Your task to perform on an android device: see tabs open on other devices in the chrome app Image 0: 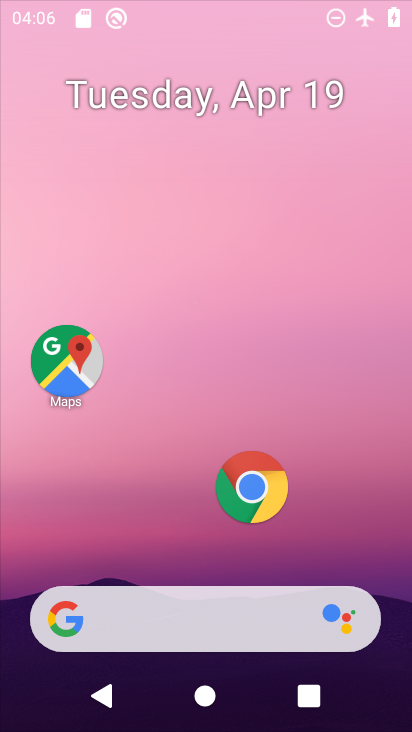
Step 0: drag from (181, 465) to (267, 71)
Your task to perform on an android device: see tabs open on other devices in the chrome app Image 1: 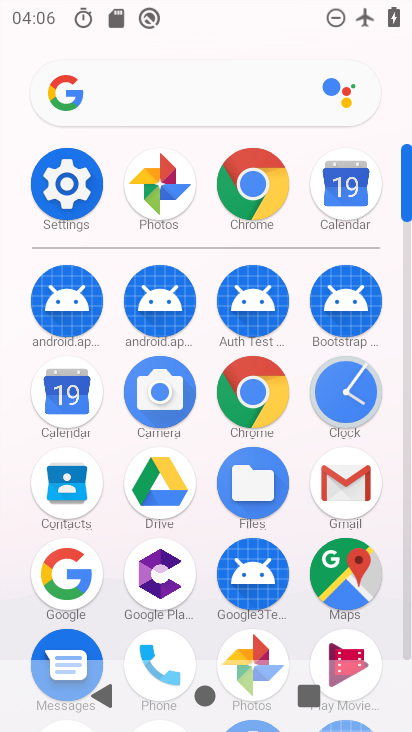
Step 1: click (265, 192)
Your task to perform on an android device: see tabs open on other devices in the chrome app Image 2: 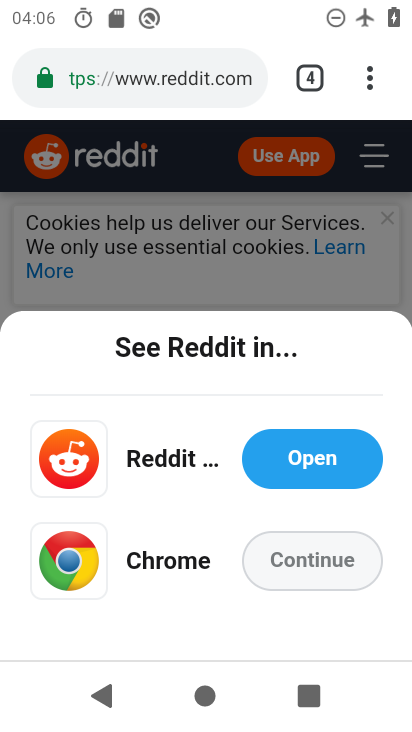
Step 2: click (150, 221)
Your task to perform on an android device: see tabs open on other devices in the chrome app Image 3: 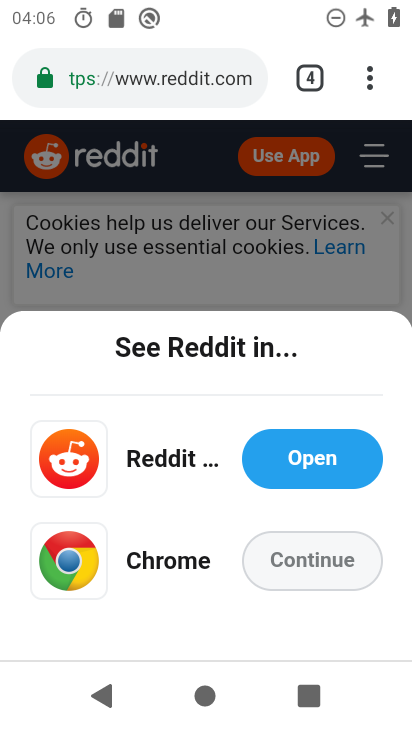
Step 3: click (372, 80)
Your task to perform on an android device: see tabs open on other devices in the chrome app Image 4: 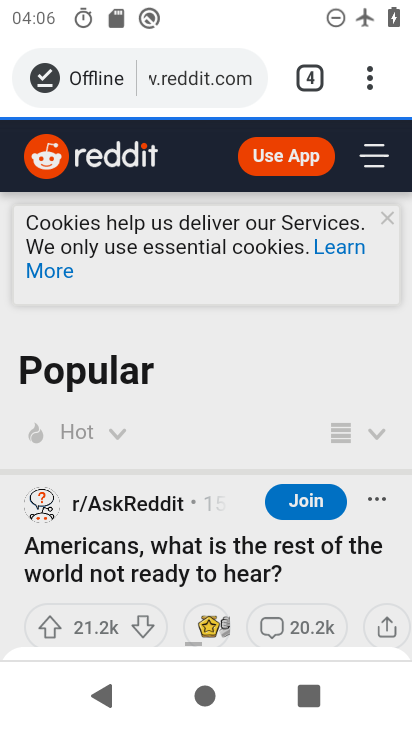
Step 4: task complete